Your task to perform on an android device: change alarm snooze length Image 0: 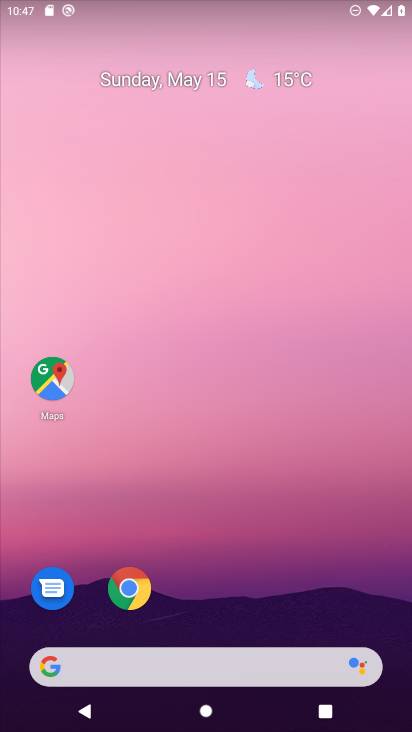
Step 0: drag from (201, 538) to (348, 5)
Your task to perform on an android device: change alarm snooze length Image 1: 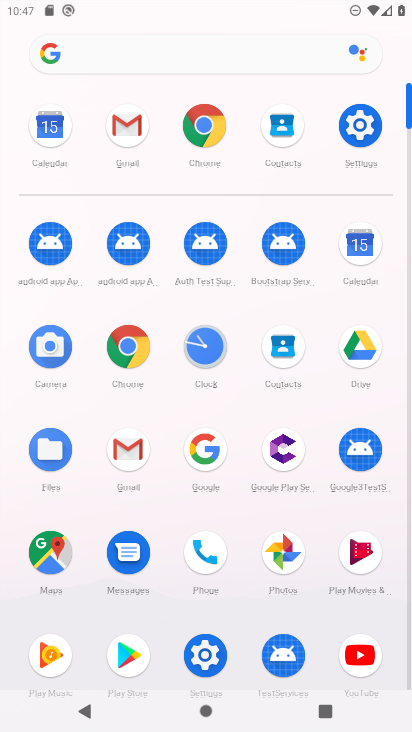
Step 1: click (366, 252)
Your task to perform on an android device: change alarm snooze length Image 2: 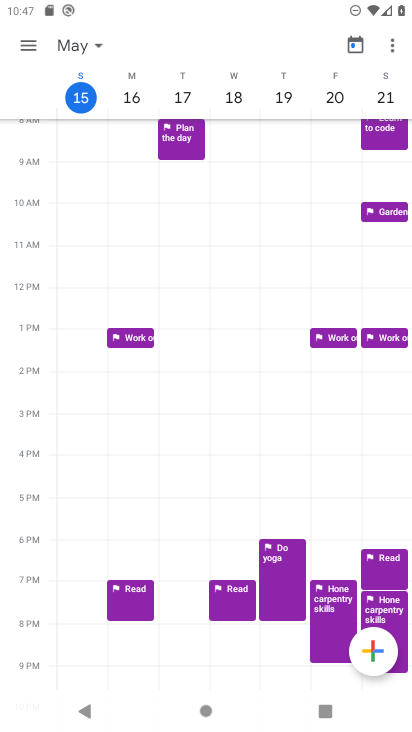
Step 2: press home button
Your task to perform on an android device: change alarm snooze length Image 3: 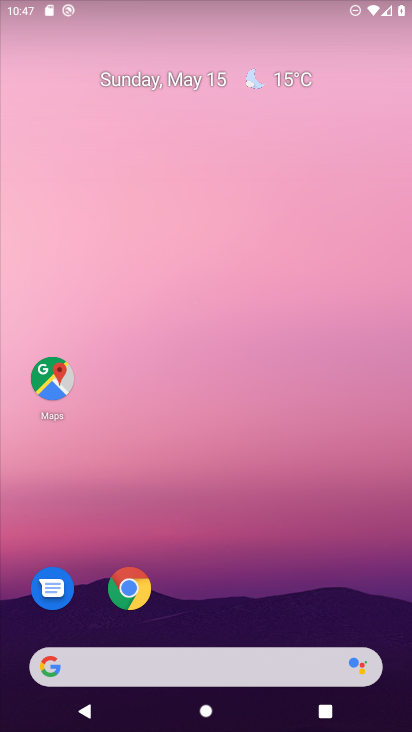
Step 3: drag from (246, 556) to (250, 22)
Your task to perform on an android device: change alarm snooze length Image 4: 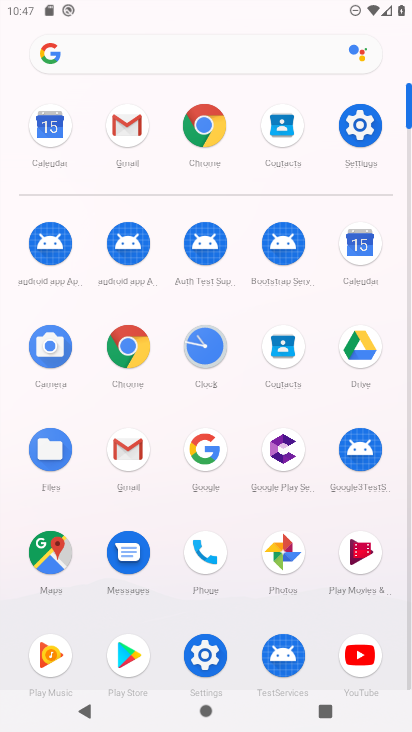
Step 4: click (203, 354)
Your task to perform on an android device: change alarm snooze length Image 5: 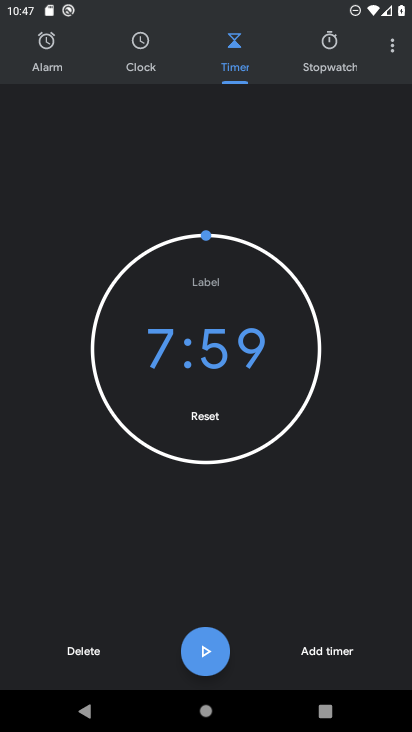
Step 5: click (394, 36)
Your task to perform on an android device: change alarm snooze length Image 6: 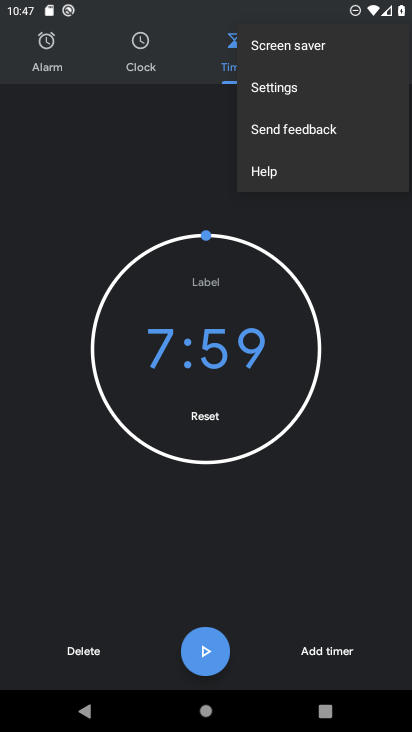
Step 6: click (251, 91)
Your task to perform on an android device: change alarm snooze length Image 7: 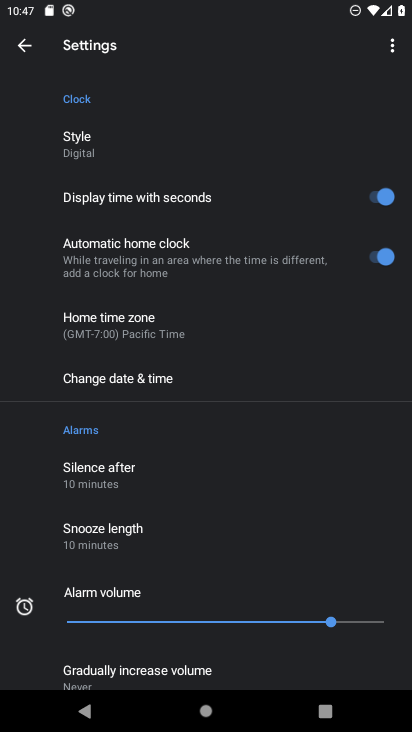
Step 7: click (108, 537)
Your task to perform on an android device: change alarm snooze length Image 8: 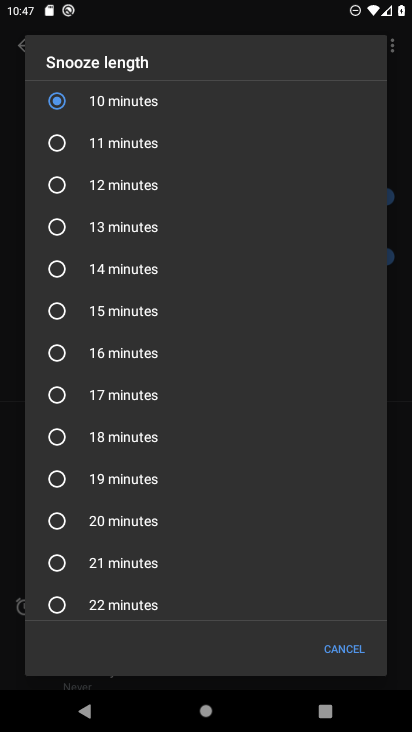
Step 8: click (55, 280)
Your task to perform on an android device: change alarm snooze length Image 9: 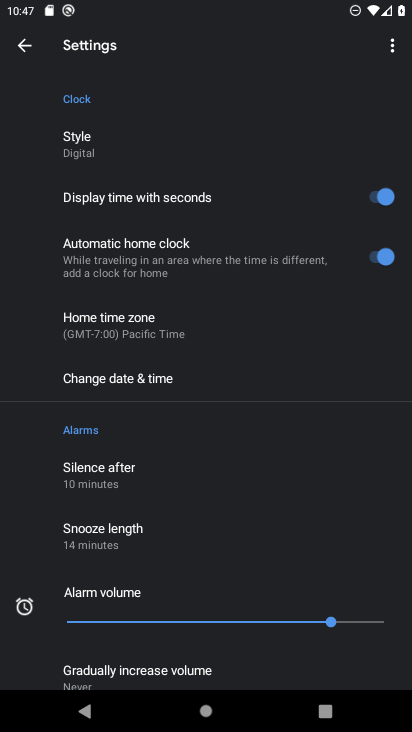
Step 9: task complete